Your task to perform on an android device: Go to Yahoo.com Image 0: 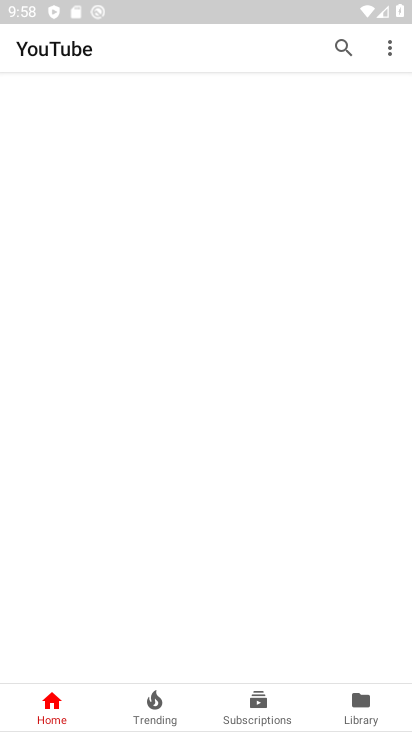
Step 0: drag from (191, 9) to (220, 669)
Your task to perform on an android device: Go to Yahoo.com Image 1: 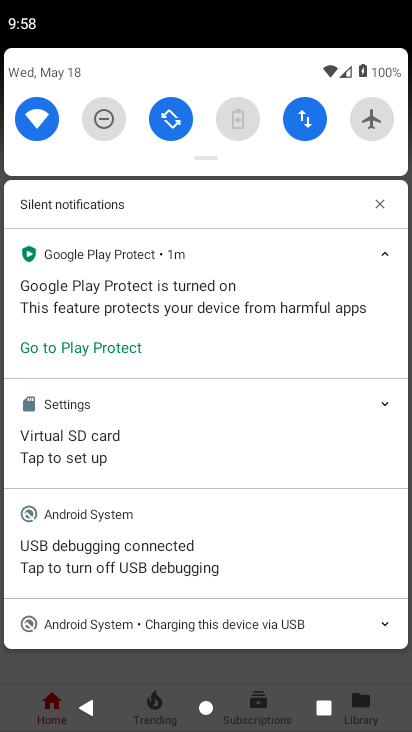
Step 1: press home button
Your task to perform on an android device: Go to Yahoo.com Image 2: 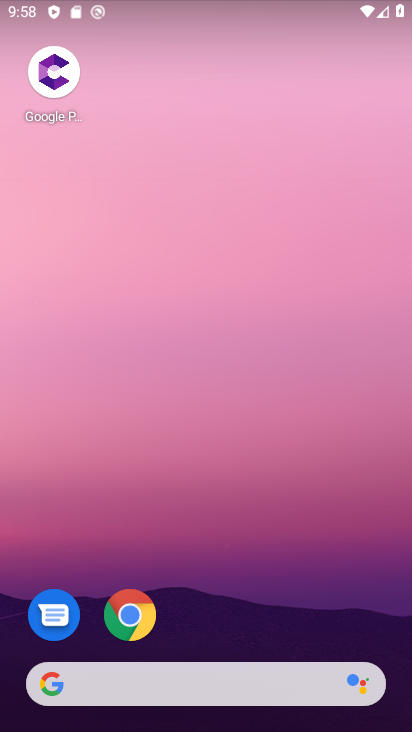
Step 2: click (178, 690)
Your task to perform on an android device: Go to Yahoo.com Image 3: 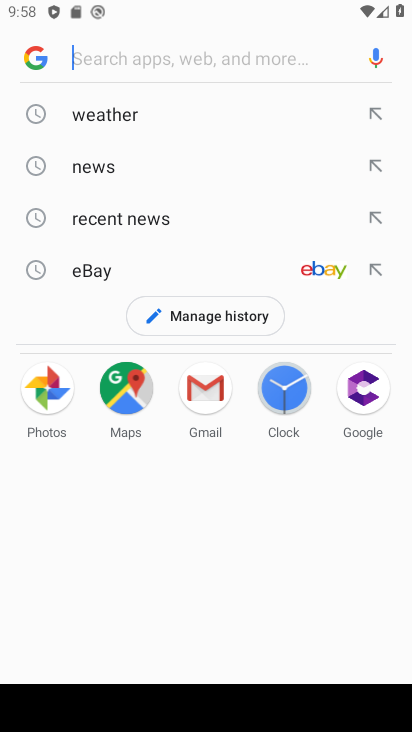
Step 3: type "yahoo"
Your task to perform on an android device: Go to Yahoo.com Image 4: 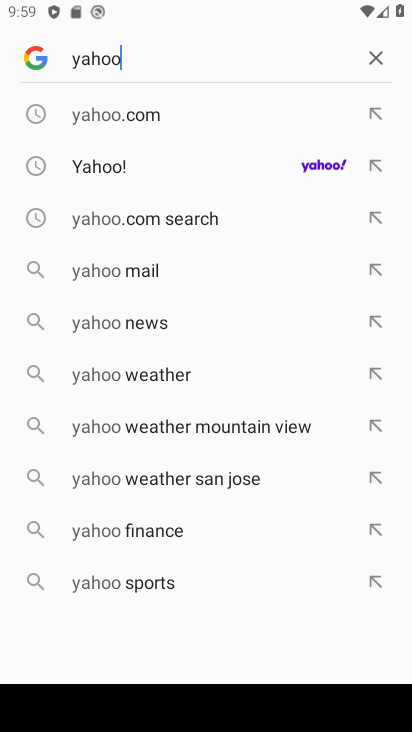
Step 4: click (242, 104)
Your task to perform on an android device: Go to Yahoo.com Image 5: 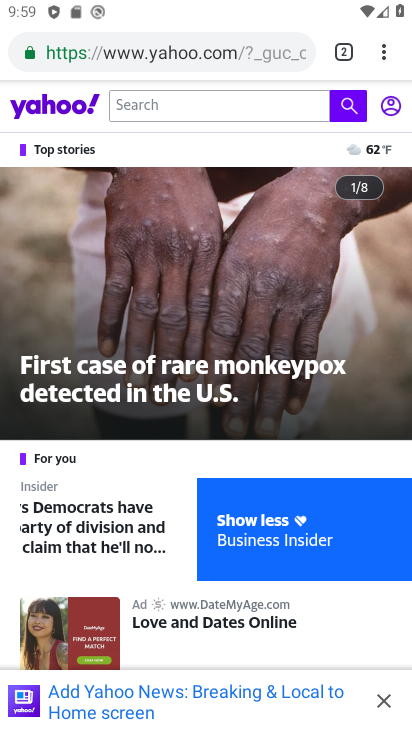
Step 5: task complete